Your task to perform on an android device: View the shopping cart on costco.com. Add macbook pro to the cart on costco.com Image 0: 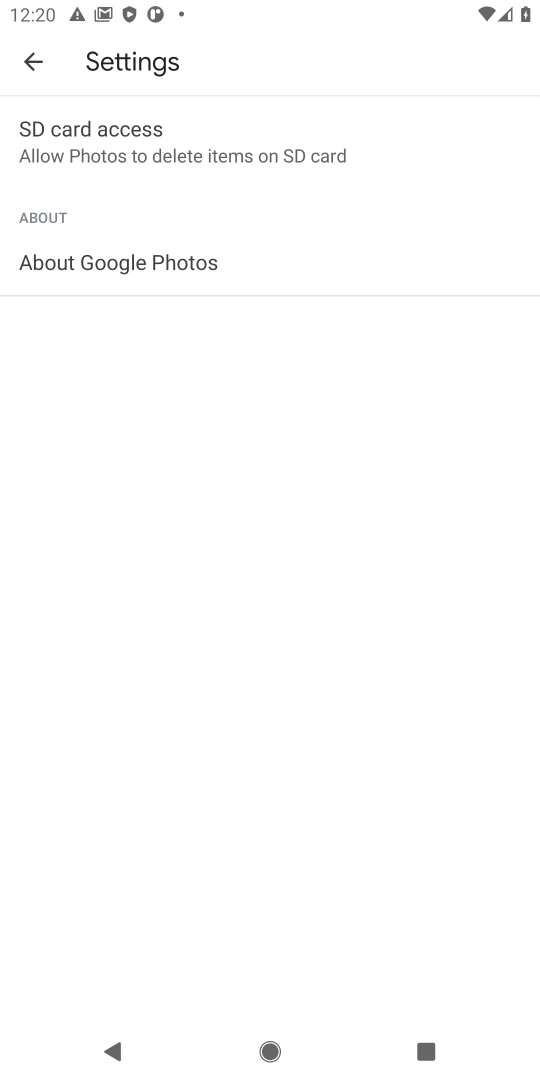
Step 0: press home button
Your task to perform on an android device: View the shopping cart on costco.com. Add macbook pro to the cart on costco.com Image 1: 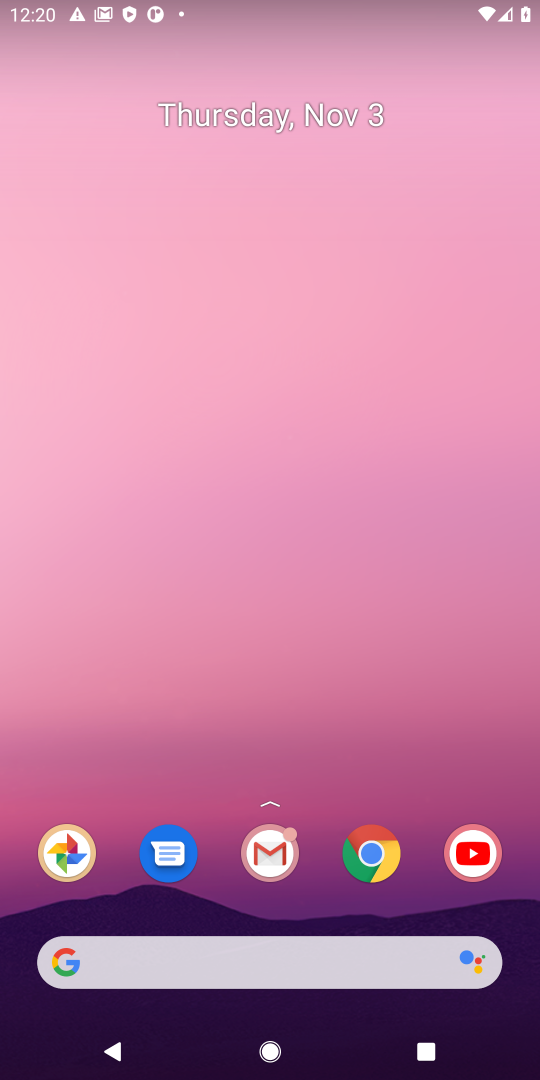
Step 1: click (371, 856)
Your task to perform on an android device: View the shopping cart on costco.com. Add macbook pro to the cart on costco.com Image 2: 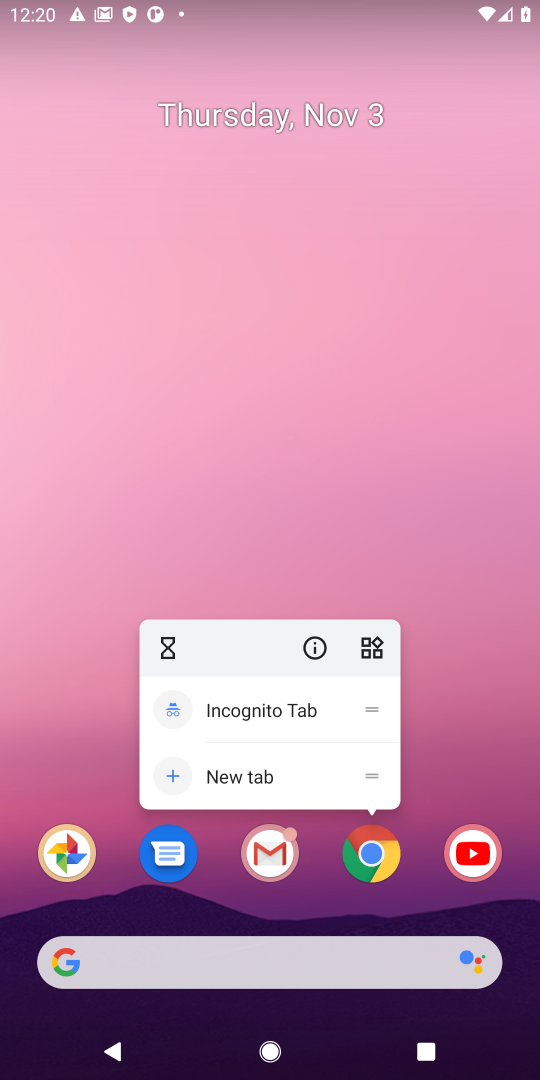
Step 2: click (371, 851)
Your task to perform on an android device: View the shopping cart on costco.com. Add macbook pro to the cart on costco.com Image 3: 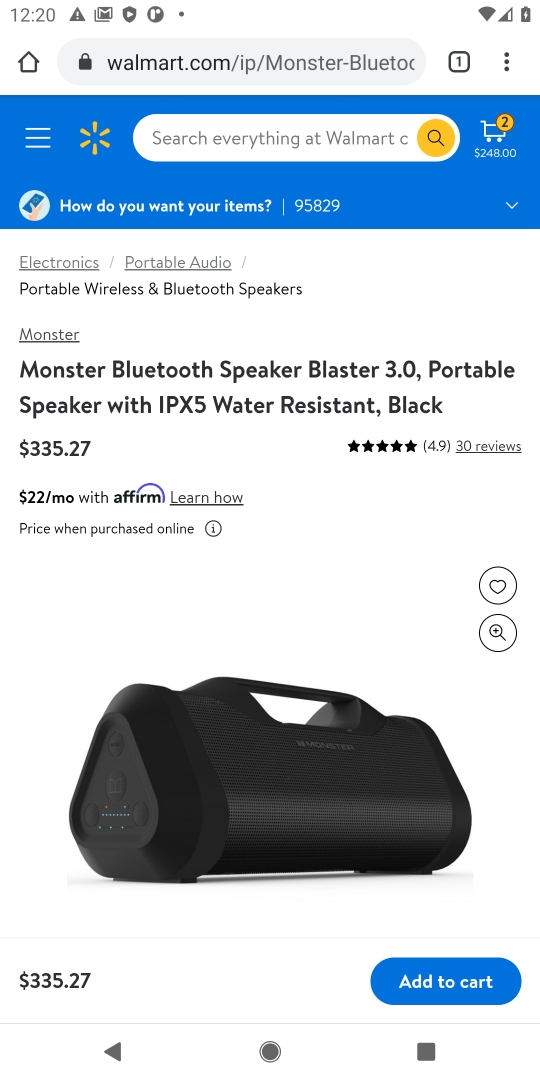
Step 3: click (256, 59)
Your task to perform on an android device: View the shopping cart on costco.com. Add macbook pro to the cart on costco.com Image 4: 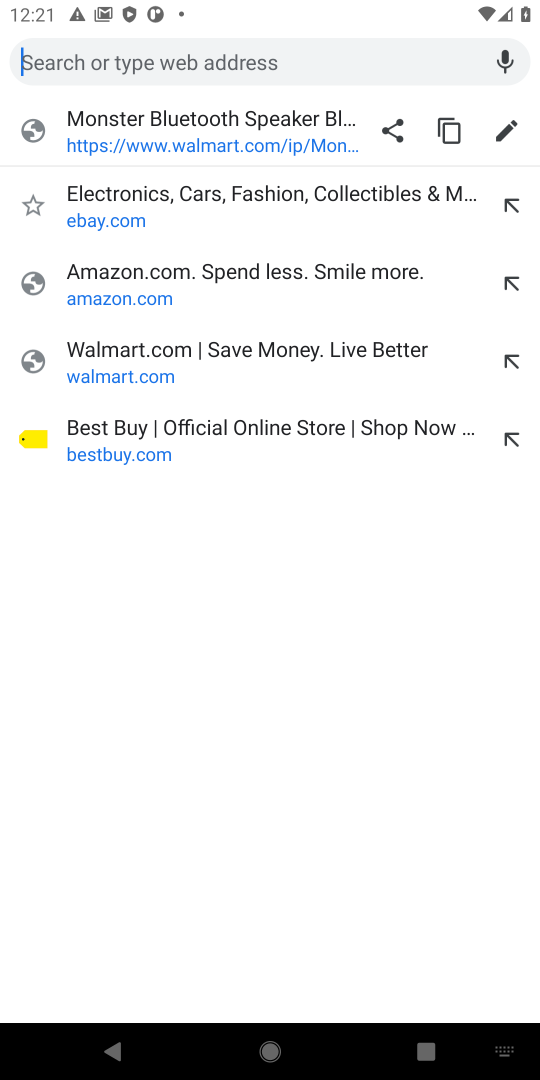
Step 4: type "costco.com"
Your task to perform on an android device: View the shopping cart on costco.com. Add macbook pro to the cart on costco.com Image 5: 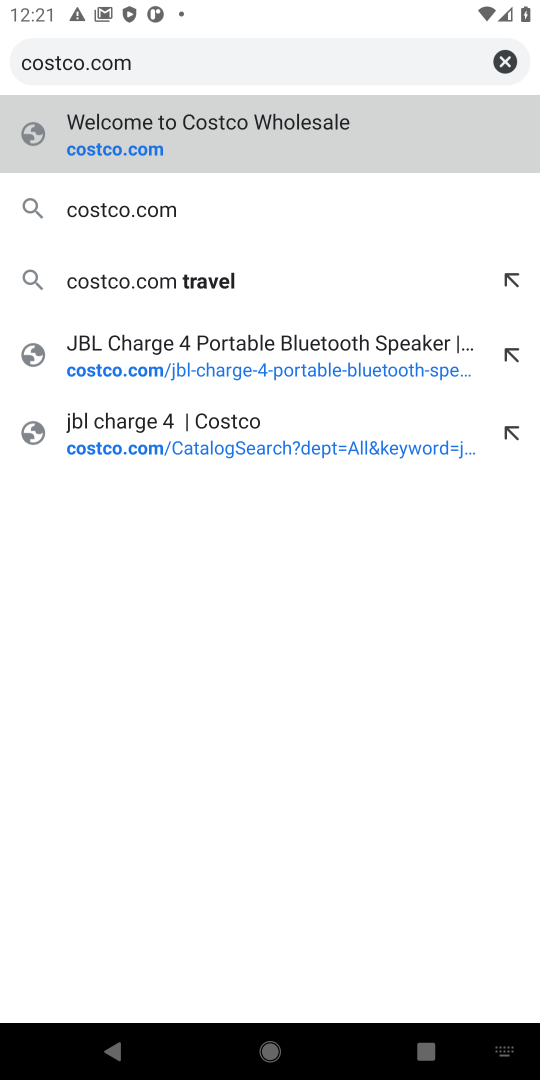
Step 5: press enter
Your task to perform on an android device: View the shopping cart on costco.com. Add macbook pro to the cart on costco.com Image 6: 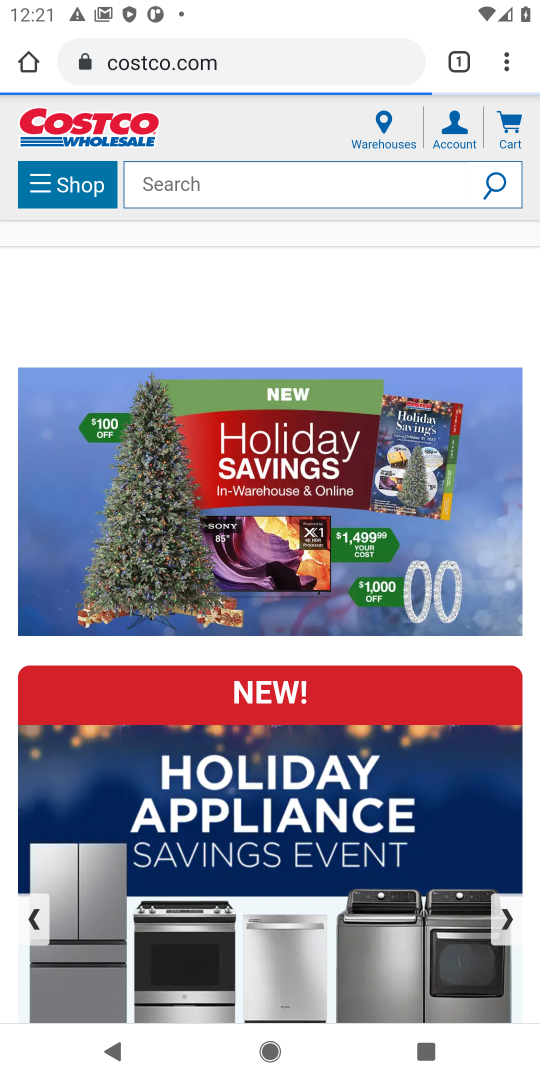
Step 6: click (255, 193)
Your task to perform on an android device: View the shopping cart on costco.com. Add macbook pro to the cart on costco.com Image 7: 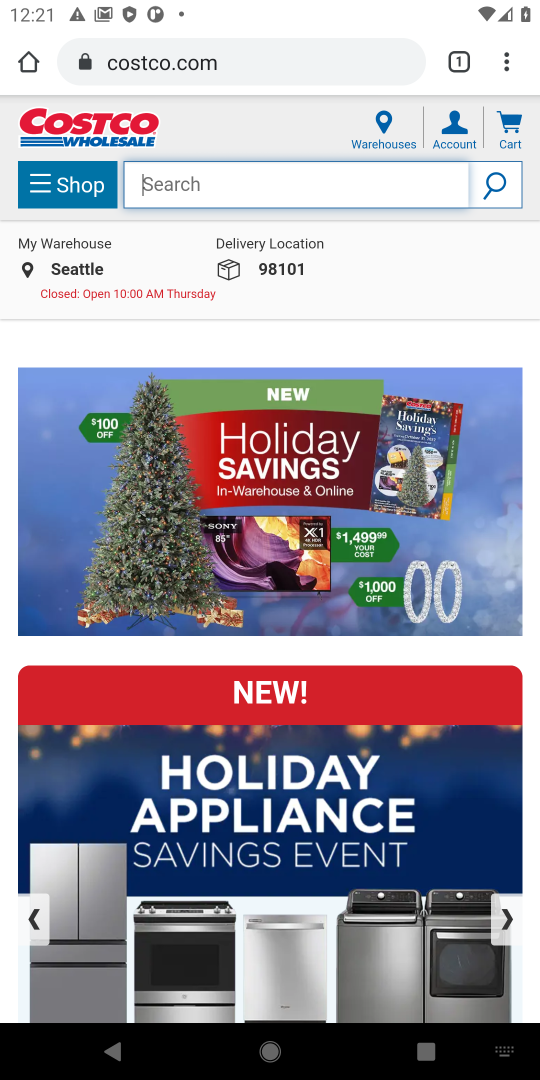
Step 7: press enter
Your task to perform on an android device: View the shopping cart on costco.com. Add macbook pro to the cart on costco.com Image 8: 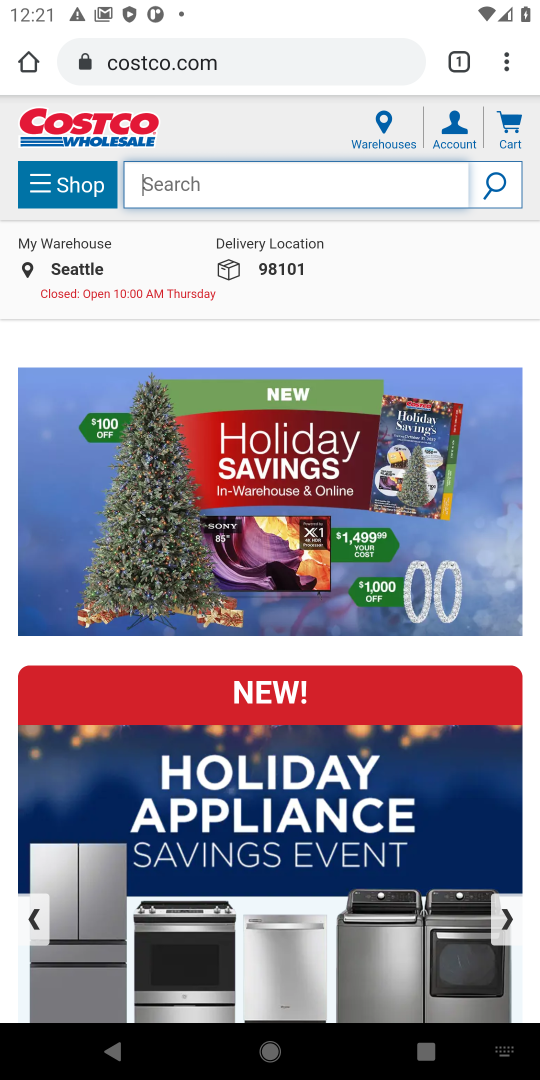
Step 8: type "macbook pro "
Your task to perform on an android device: View the shopping cart on costco.com. Add macbook pro to the cart on costco.com Image 9: 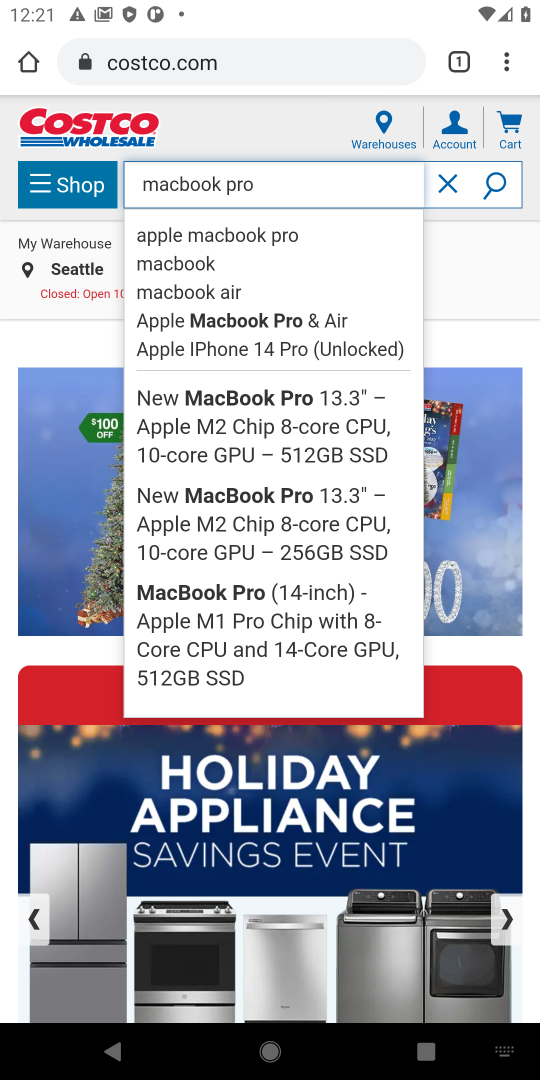
Step 9: press enter
Your task to perform on an android device: View the shopping cart on costco.com. Add macbook pro to the cart on costco.com Image 10: 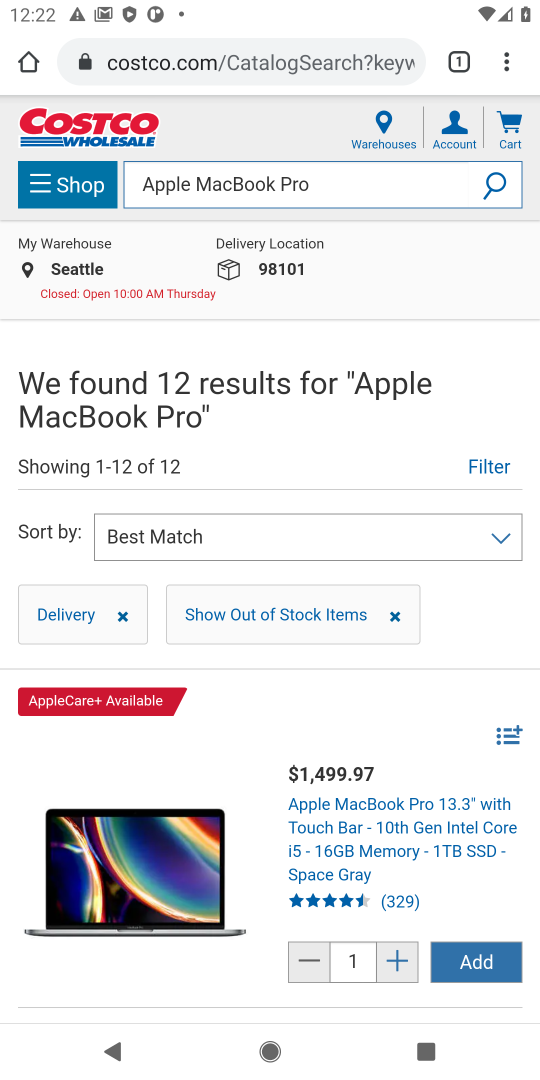
Step 10: click (478, 963)
Your task to perform on an android device: View the shopping cart on costco.com. Add macbook pro to the cart on costco.com Image 11: 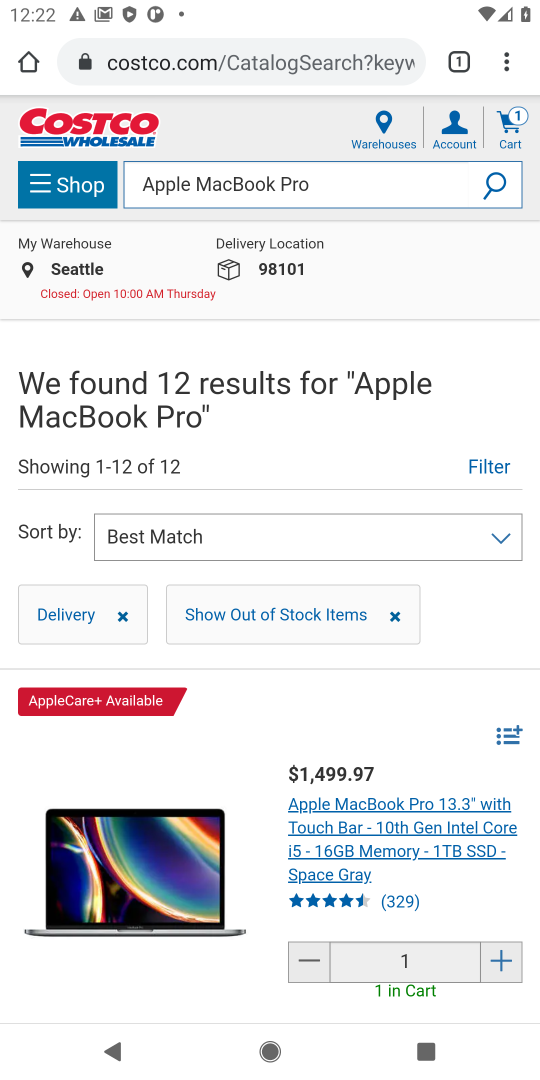
Step 11: click (513, 118)
Your task to perform on an android device: View the shopping cart on costco.com. Add macbook pro to the cart on costco.com Image 12: 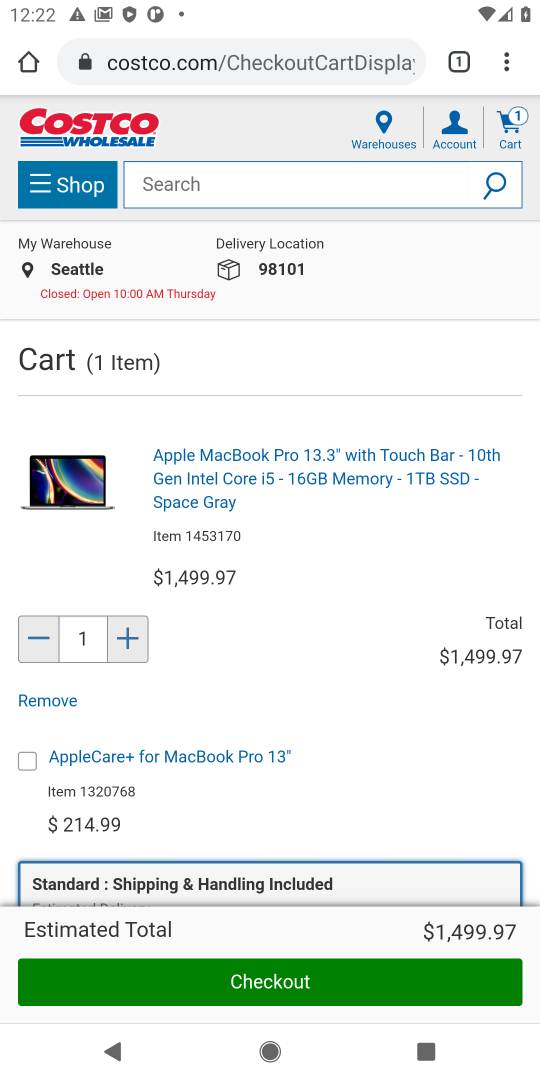
Step 12: task complete